Your task to perform on an android device: toggle show notifications on the lock screen Image 0: 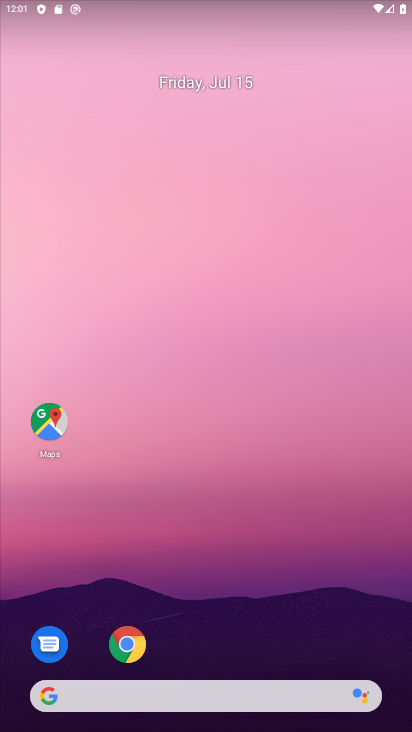
Step 0: drag from (226, 722) to (224, 97)
Your task to perform on an android device: toggle show notifications on the lock screen Image 1: 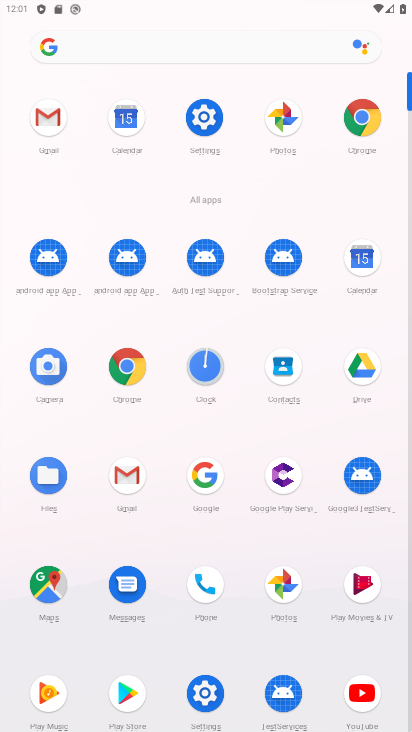
Step 1: click (211, 116)
Your task to perform on an android device: toggle show notifications on the lock screen Image 2: 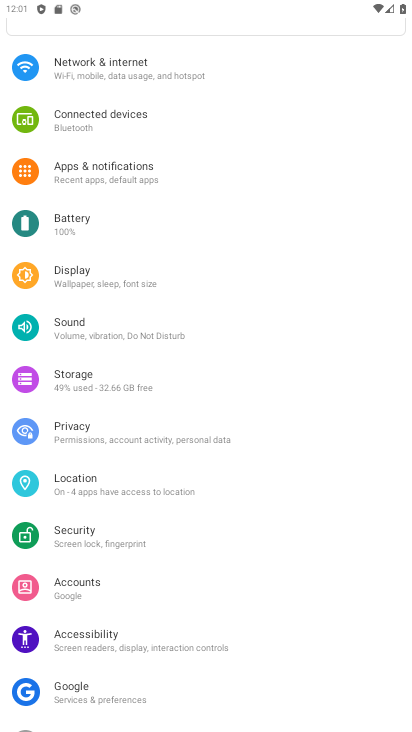
Step 2: click (97, 178)
Your task to perform on an android device: toggle show notifications on the lock screen Image 3: 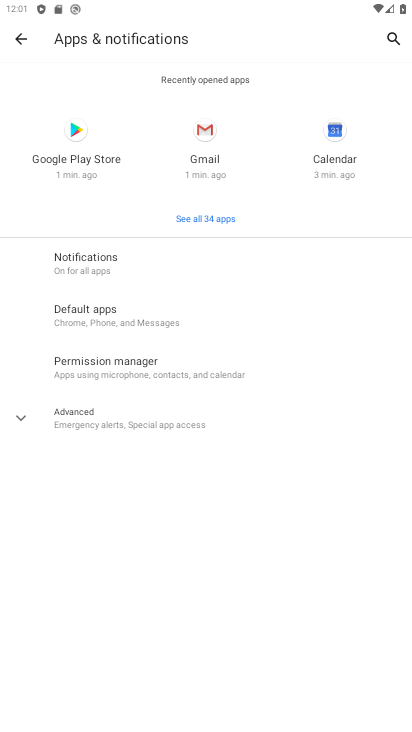
Step 3: click (75, 261)
Your task to perform on an android device: toggle show notifications on the lock screen Image 4: 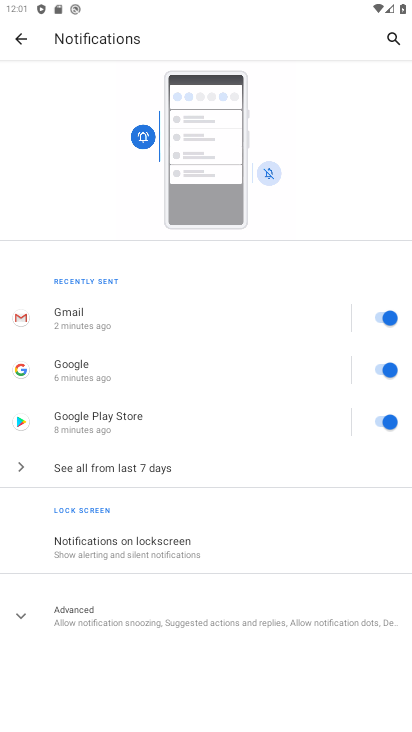
Step 4: click (79, 545)
Your task to perform on an android device: toggle show notifications on the lock screen Image 5: 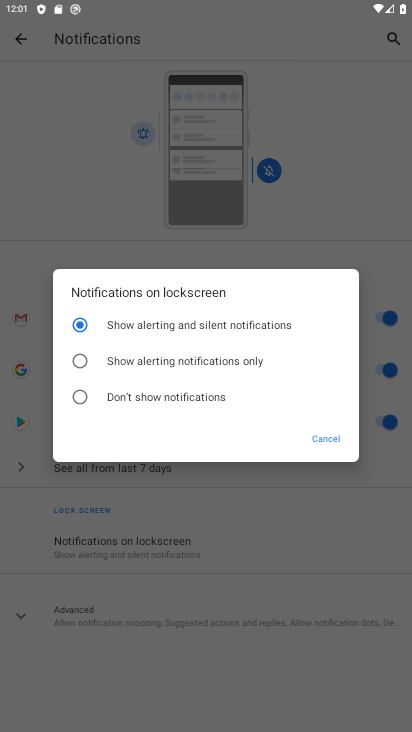
Step 5: click (89, 357)
Your task to perform on an android device: toggle show notifications on the lock screen Image 6: 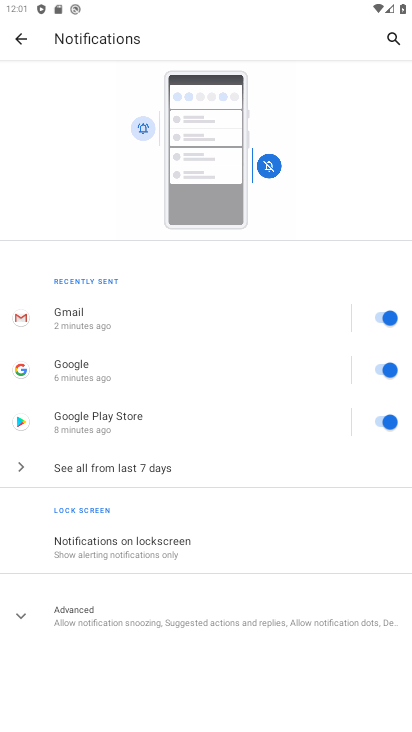
Step 6: task complete